Your task to perform on an android device: Go to calendar. Show me events next week Image 0: 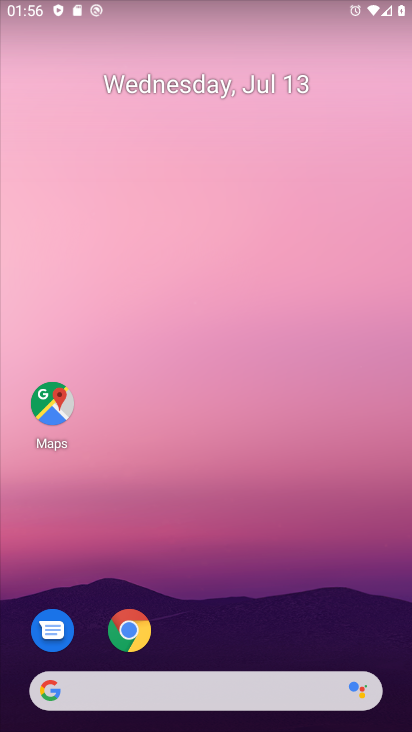
Step 0: drag from (207, 645) to (141, 223)
Your task to perform on an android device: Go to calendar. Show me events next week Image 1: 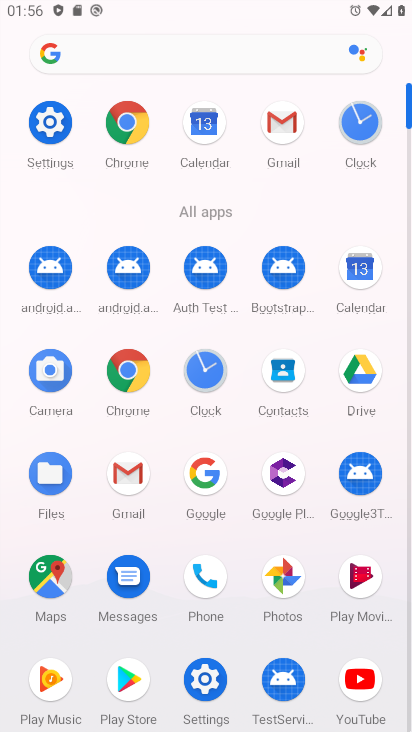
Step 1: click (362, 248)
Your task to perform on an android device: Go to calendar. Show me events next week Image 2: 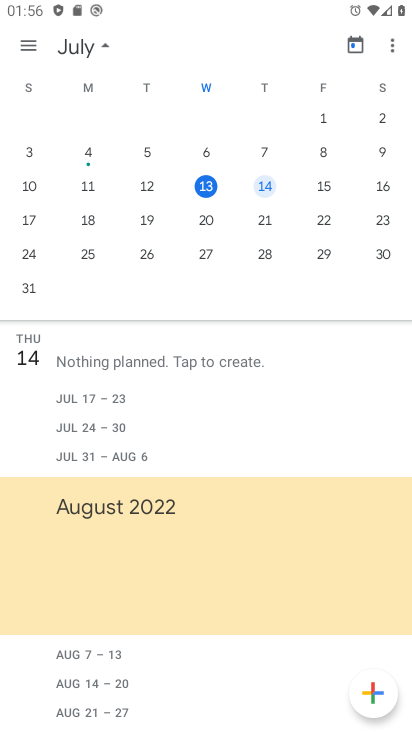
Step 2: click (26, 223)
Your task to perform on an android device: Go to calendar. Show me events next week Image 3: 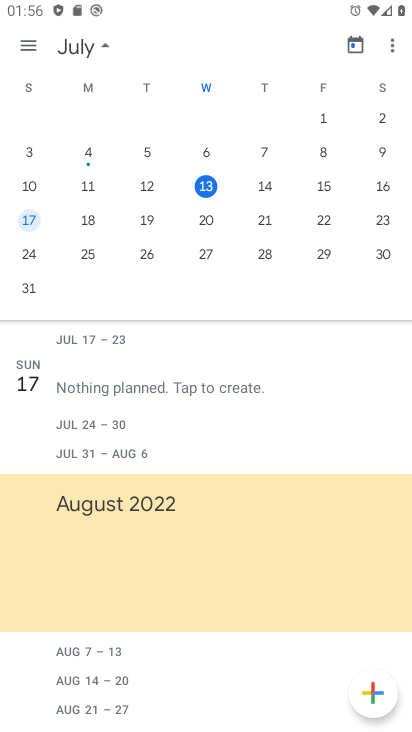
Step 3: click (27, 223)
Your task to perform on an android device: Go to calendar. Show me events next week Image 4: 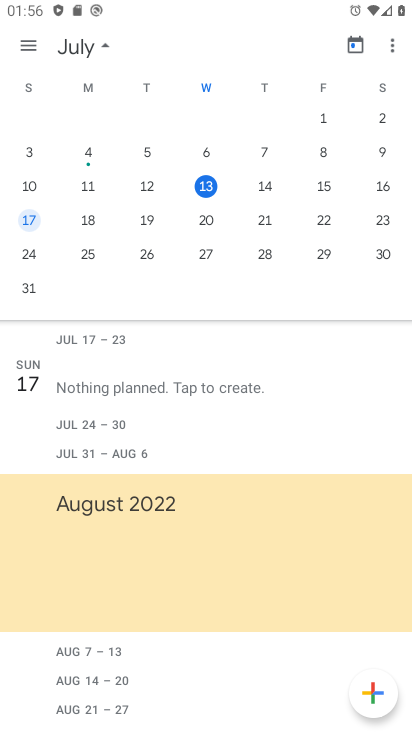
Step 4: click (76, 215)
Your task to perform on an android device: Go to calendar. Show me events next week Image 5: 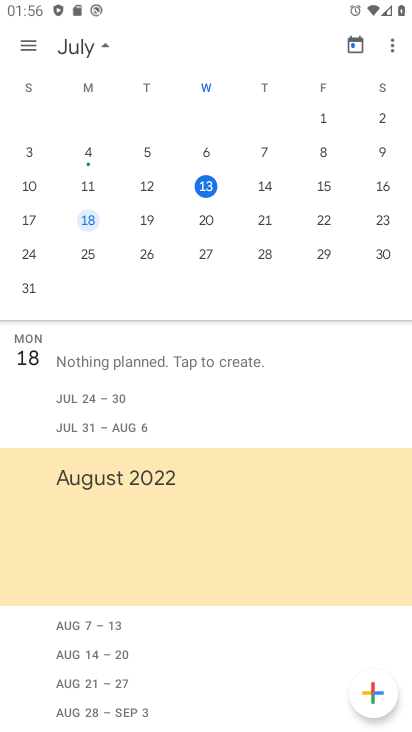
Step 5: task complete